Your task to perform on an android device: What's on my calendar tomorrow? Image 0: 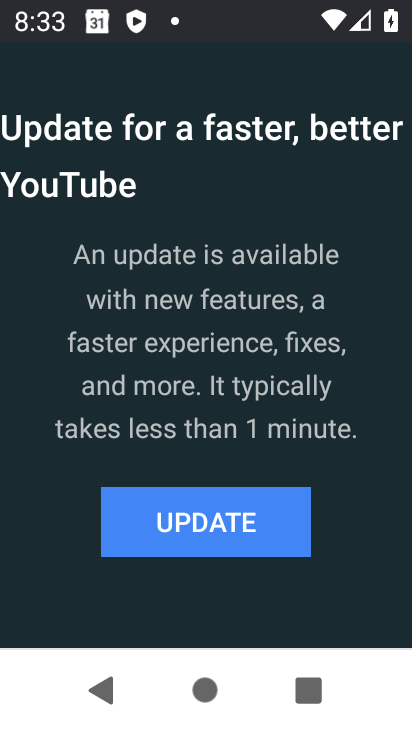
Step 0: press back button
Your task to perform on an android device: What's on my calendar tomorrow? Image 1: 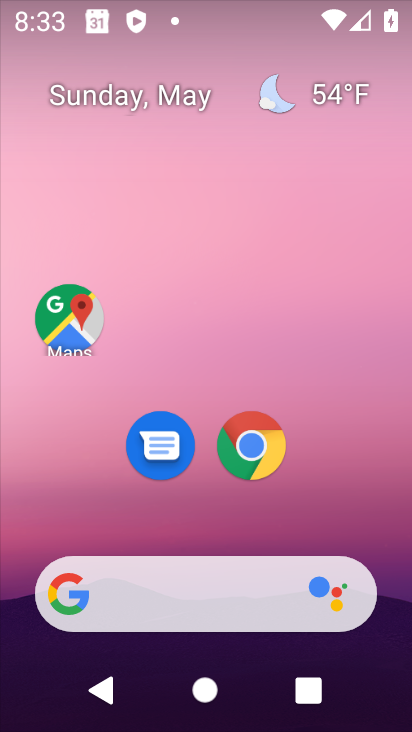
Step 1: drag from (361, 512) to (327, 175)
Your task to perform on an android device: What's on my calendar tomorrow? Image 2: 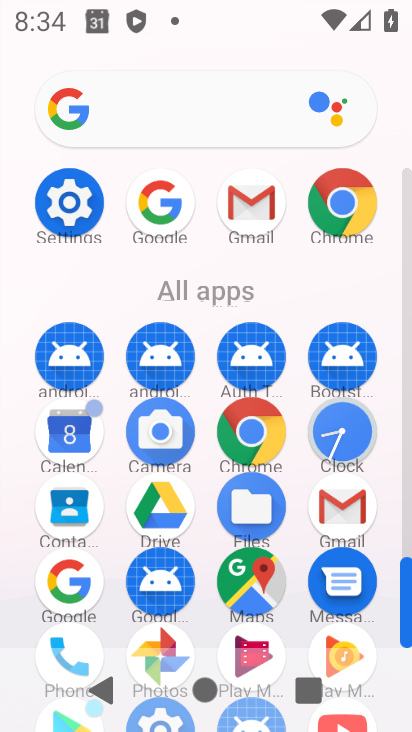
Step 2: click (88, 432)
Your task to perform on an android device: What's on my calendar tomorrow? Image 3: 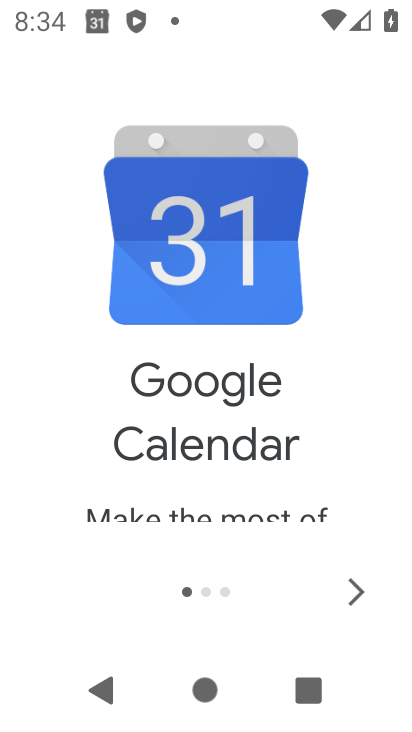
Step 3: click (353, 585)
Your task to perform on an android device: What's on my calendar tomorrow? Image 4: 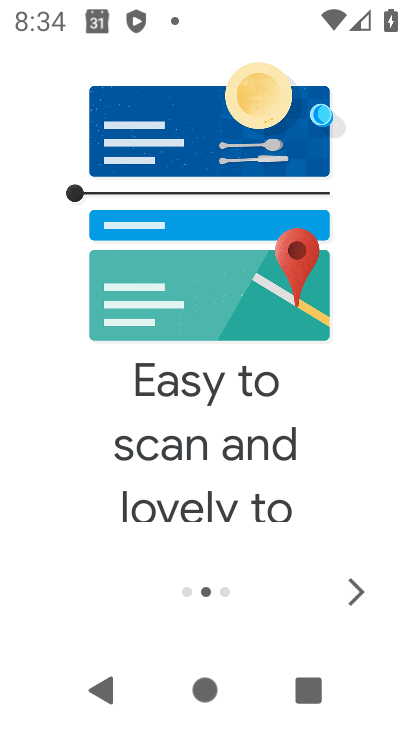
Step 4: click (353, 585)
Your task to perform on an android device: What's on my calendar tomorrow? Image 5: 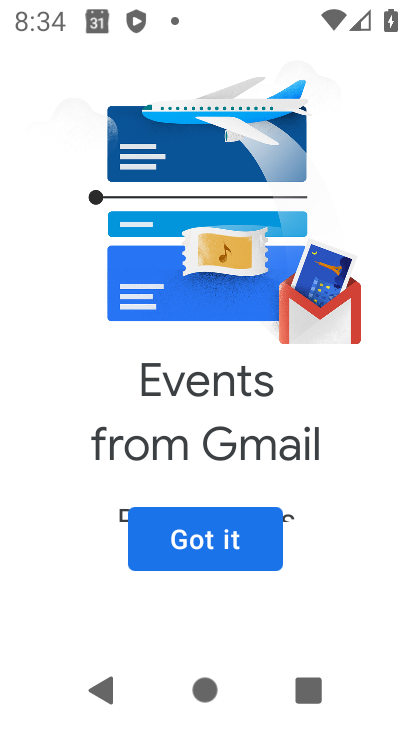
Step 5: click (204, 524)
Your task to perform on an android device: What's on my calendar tomorrow? Image 6: 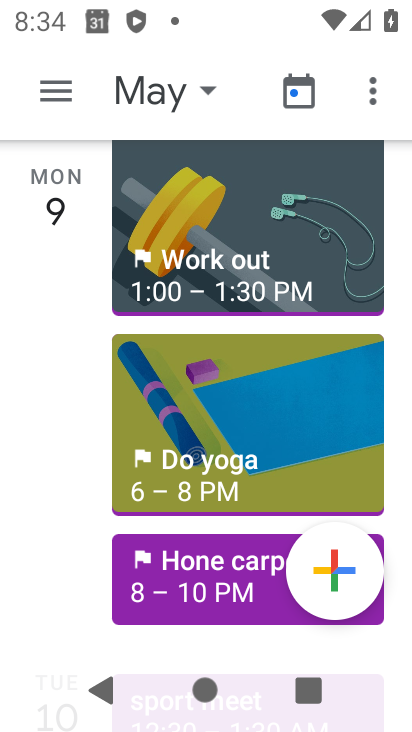
Step 6: click (171, 89)
Your task to perform on an android device: What's on my calendar tomorrow? Image 7: 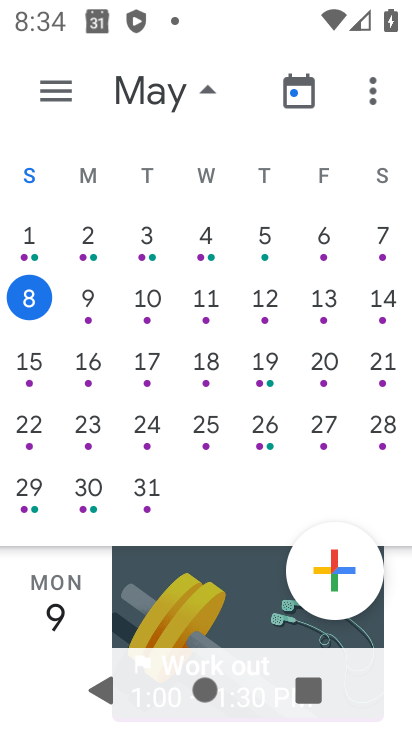
Step 7: click (152, 308)
Your task to perform on an android device: What's on my calendar tomorrow? Image 8: 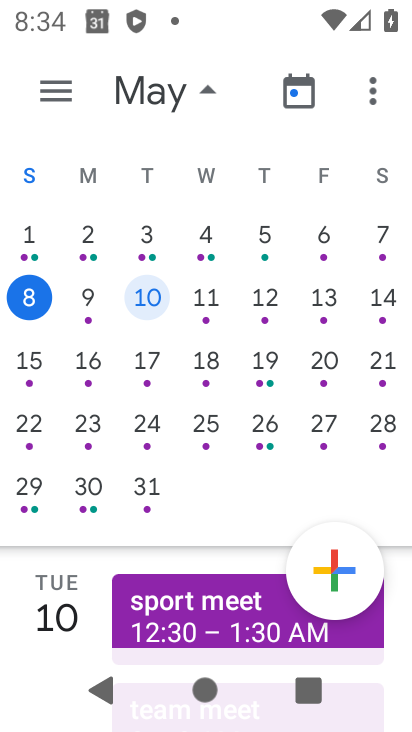
Step 8: click (200, 97)
Your task to perform on an android device: What's on my calendar tomorrow? Image 9: 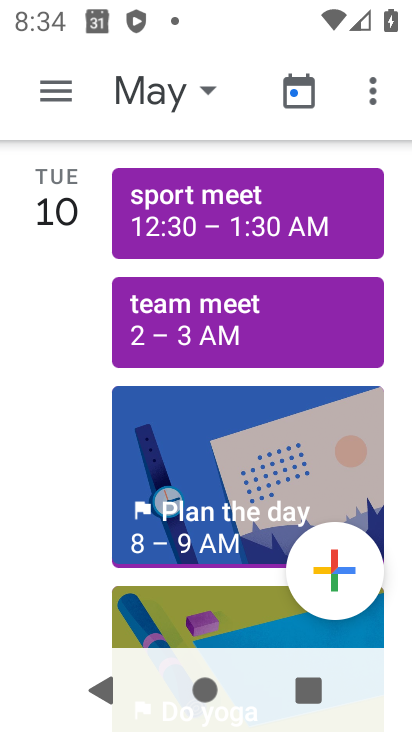
Step 9: task complete